Your task to perform on an android device: see creations saved in the google photos Image 0: 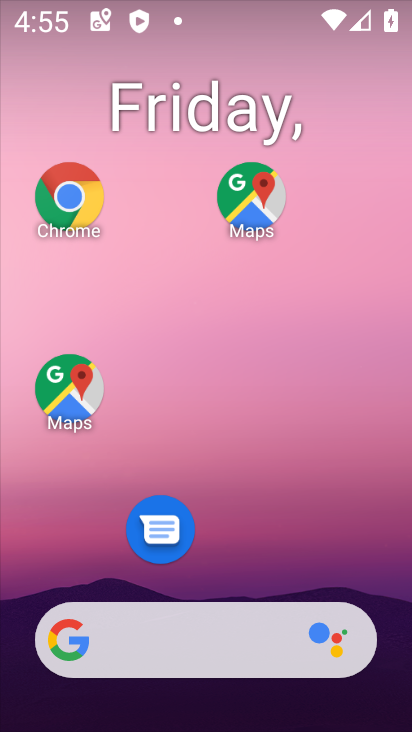
Step 0: drag from (269, 438) to (213, 40)
Your task to perform on an android device: see creations saved in the google photos Image 1: 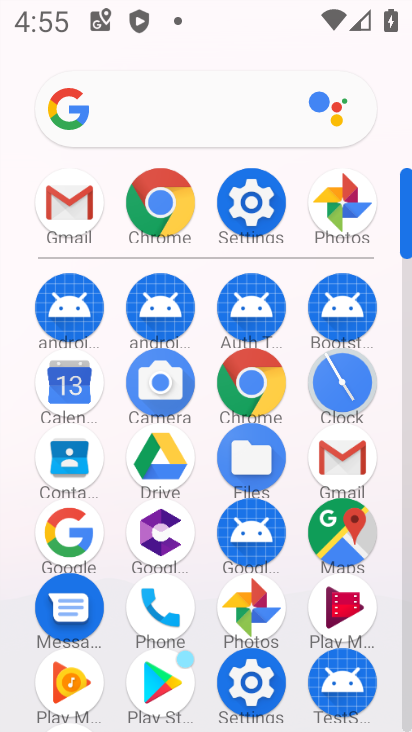
Step 1: click (238, 603)
Your task to perform on an android device: see creations saved in the google photos Image 2: 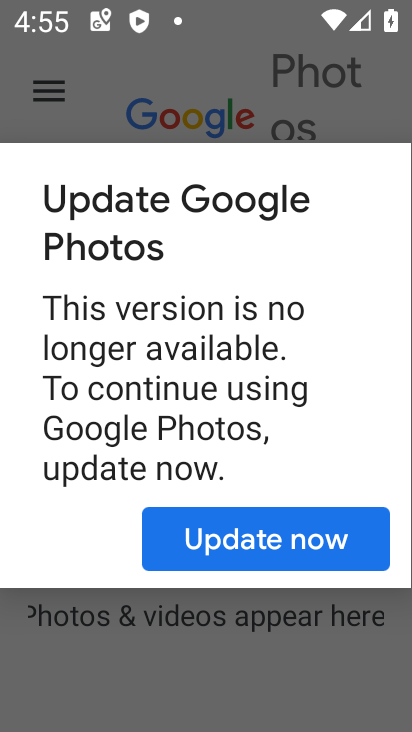
Step 2: click (229, 545)
Your task to perform on an android device: see creations saved in the google photos Image 3: 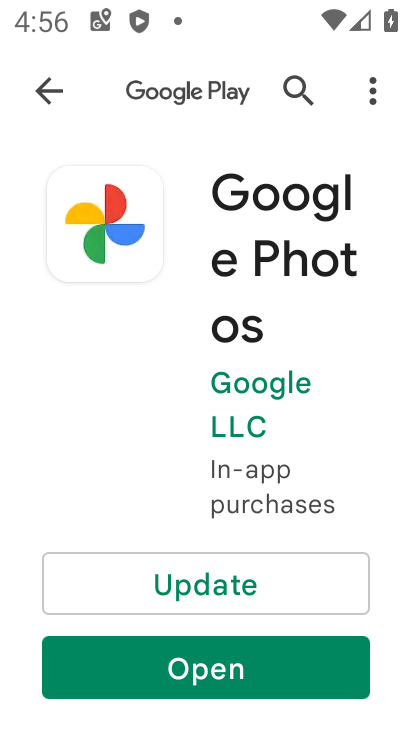
Step 3: click (165, 667)
Your task to perform on an android device: see creations saved in the google photos Image 4: 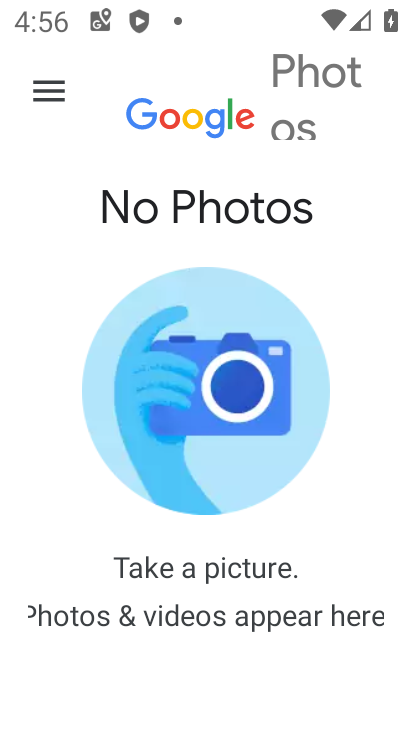
Step 4: click (49, 94)
Your task to perform on an android device: see creations saved in the google photos Image 5: 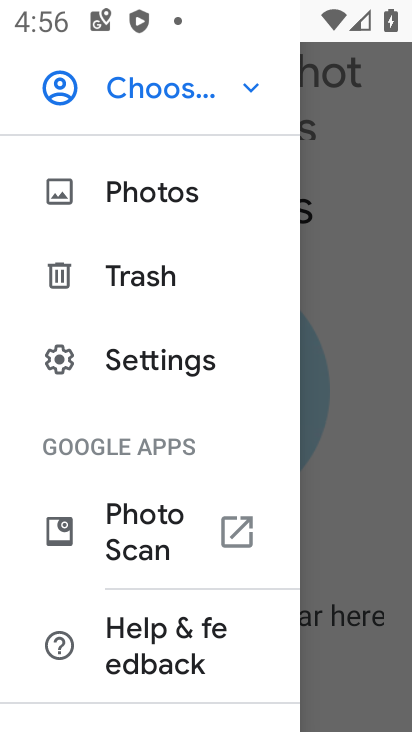
Step 5: click (152, 201)
Your task to perform on an android device: see creations saved in the google photos Image 6: 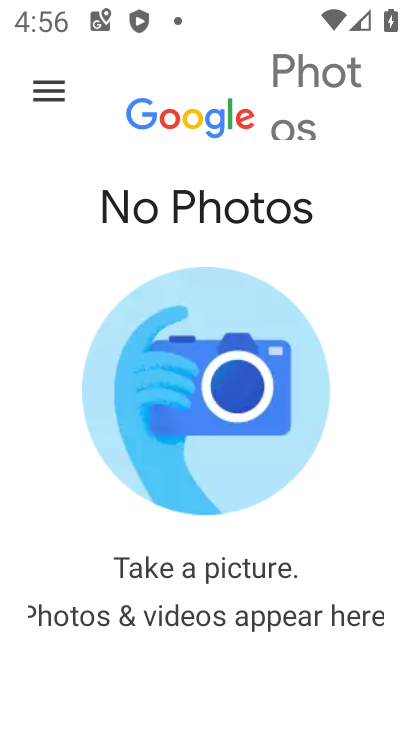
Step 6: task complete